Your task to perform on an android device: Add "sony triple a" to the cart on amazon.com Image 0: 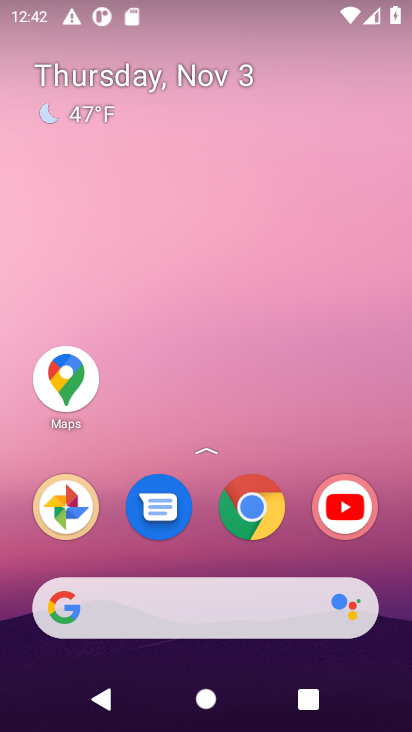
Step 0: click (169, 608)
Your task to perform on an android device: Add "sony triple a" to the cart on amazon.com Image 1: 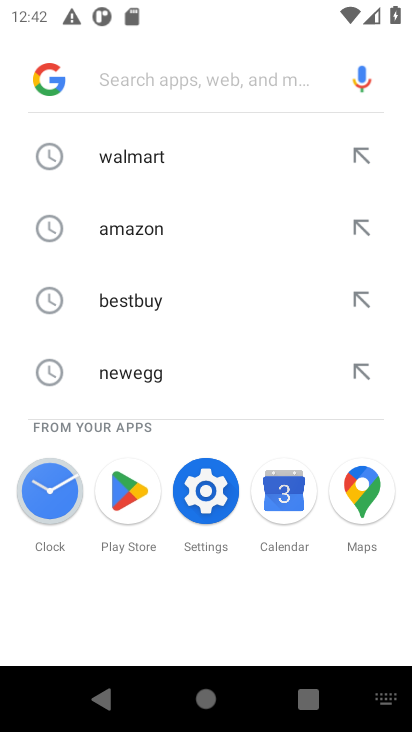
Step 1: type "sony triple"
Your task to perform on an android device: Add "sony triple a" to the cart on amazon.com Image 2: 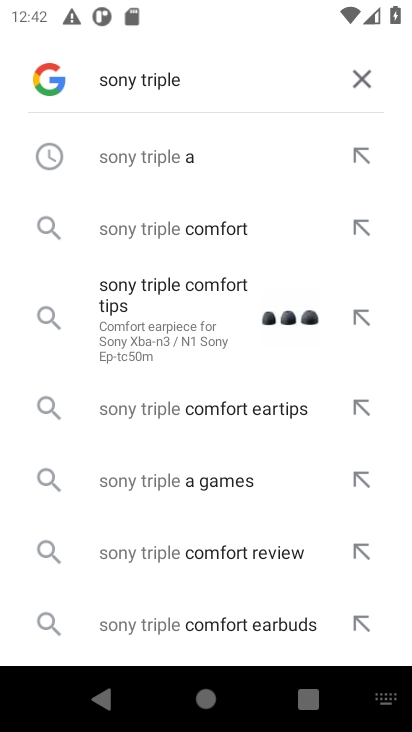
Step 2: click (212, 165)
Your task to perform on an android device: Add "sony triple a" to the cart on amazon.com Image 3: 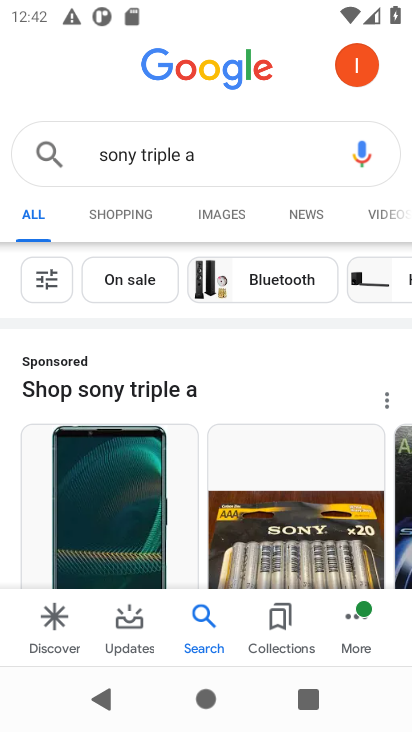
Step 3: click (264, 537)
Your task to perform on an android device: Add "sony triple a" to the cart on amazon.com Image 4: 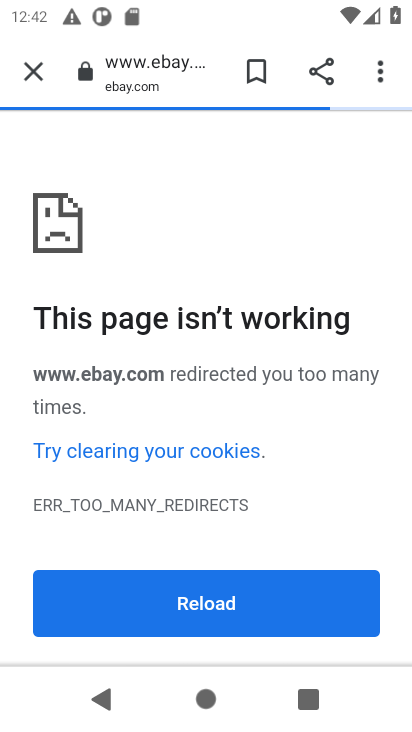
Step 4: task complete